Your task to perform on an android device: set default search engine in the chrome app Image 0: 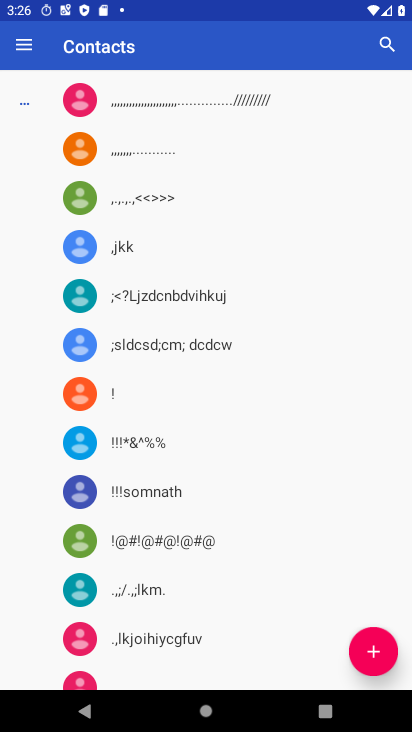
Step 0: press home button
Your task to perform on an android device: set default search engine in the chrome app Image 1: 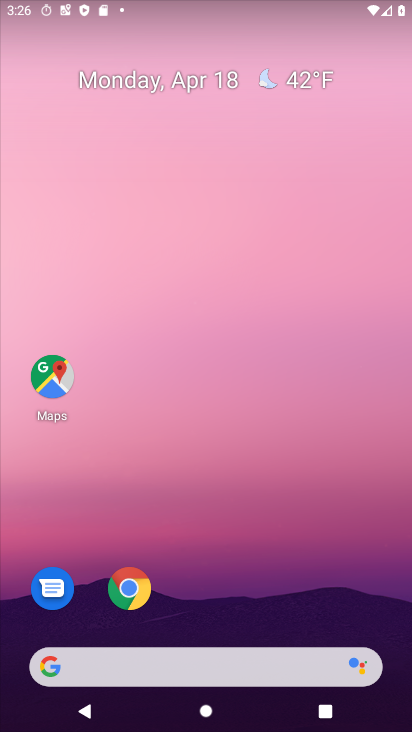
Step 1: click (115, 586)
Your task to perform on an android device: set default search engine in the chrome app Image 2: 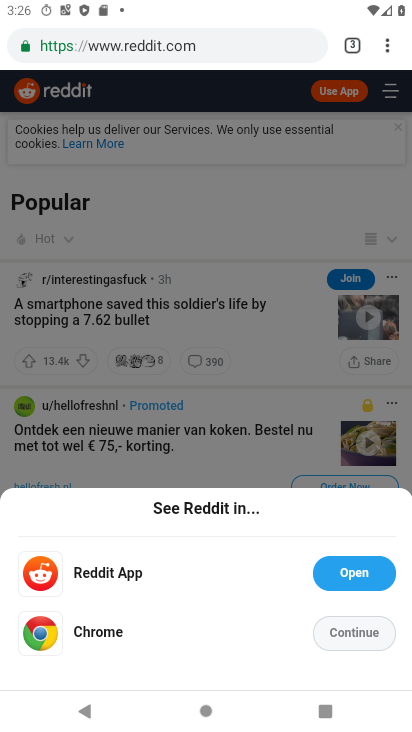
Step 2: click (387, 51)
Your task to perform on an android device: set default search engine in the chrome app Image 3: 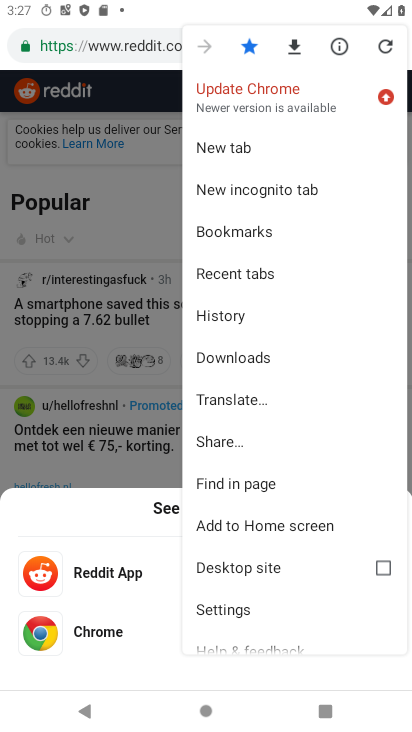
Step 3: click (223, 601)
Your task to perform on an android device: set default search engine in the chrome app Image 4: 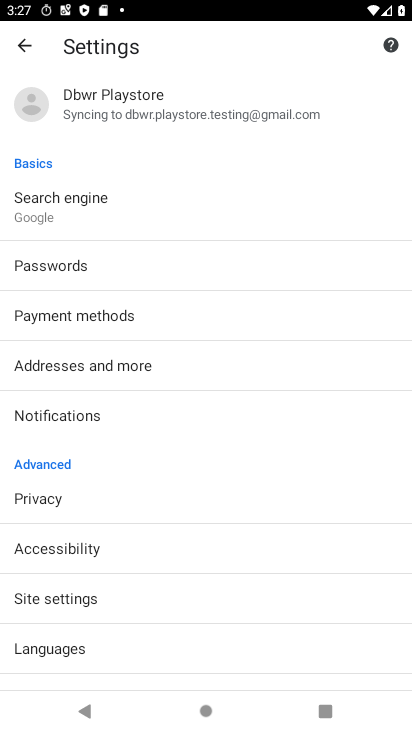
Step 4: click (146, 221)
Your task to perform on an android device: set default search engine in the chrome app Image 5: 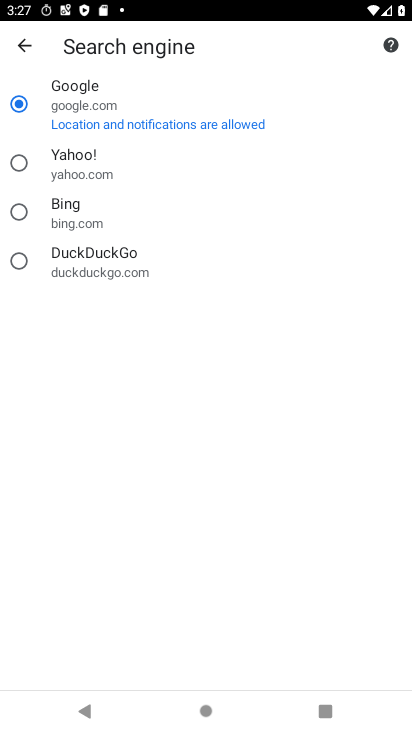
Step 5: click (146, 221)
Your task to perform on an android device: set default search engine in the chrome app Image 6: 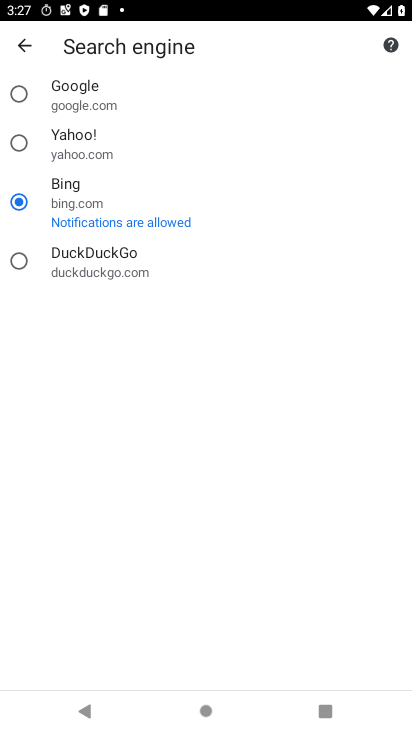
Step 6: task complete